Your task to perform on an android device: Go to sound settings Image 0: 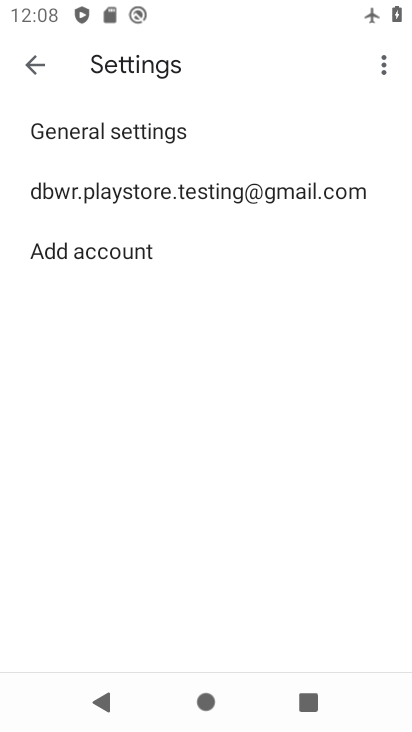
Step 0: press home button
Your task to perform on an android device: Go to sound settings Image 1: 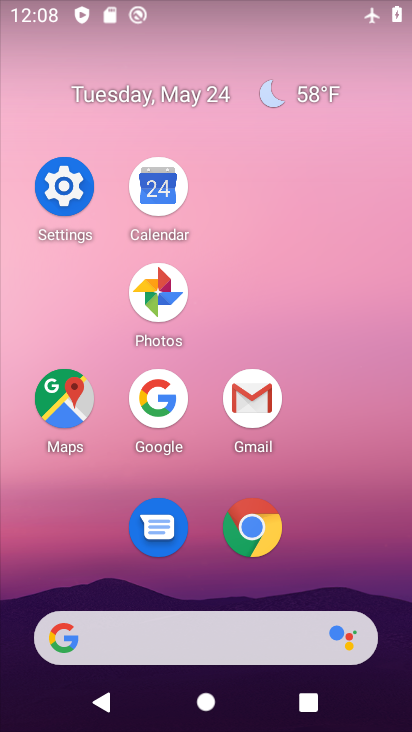
Step 1: click (70, 204)
Your task to perform on an android device: Go to sound settings Image 2: 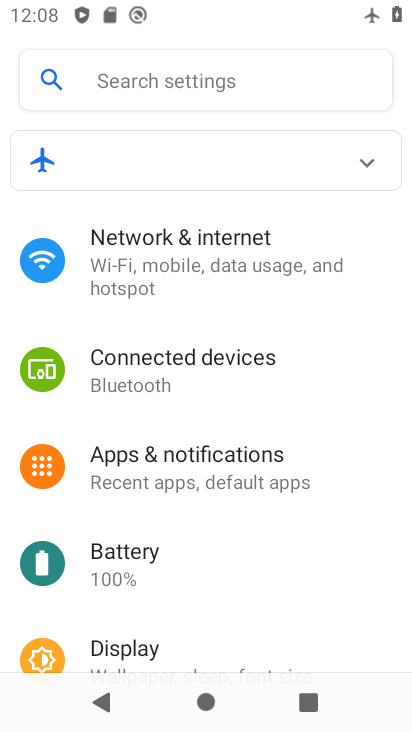
Step 2: drag from (200, 538) to (245, 224)
Your task to perform on an android device: Go to sound settings Image 3: 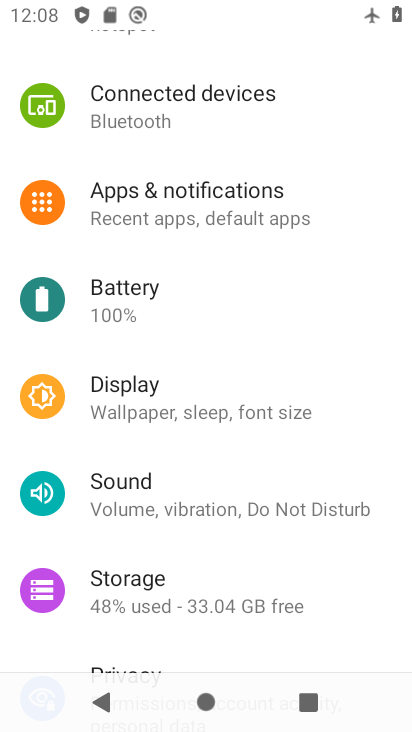
Step 3: click (222, 484)
Your task to perform on an android device: Go to sound settings Image 4: 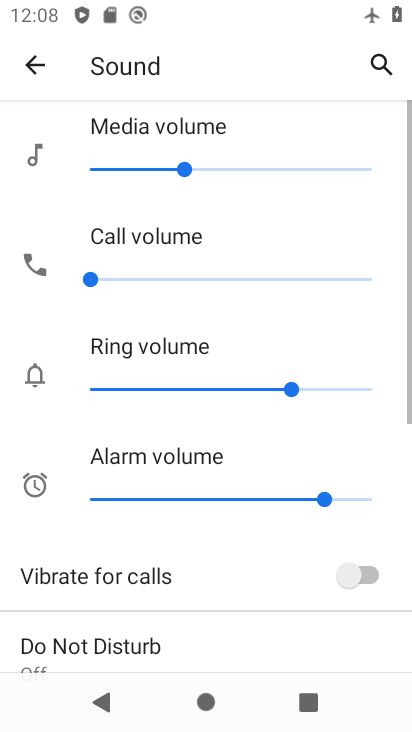
Step 4: task complete